Your task to perform on an android device: Do I have any events this weekend? Image 0: 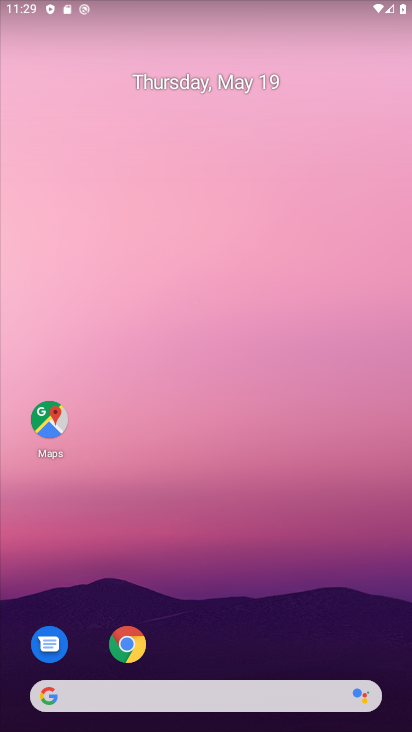
Step 0: drag from (202, 671) to (141, 93)
Your task to perform on an android device: Do I have any events this weekend? Image 1: 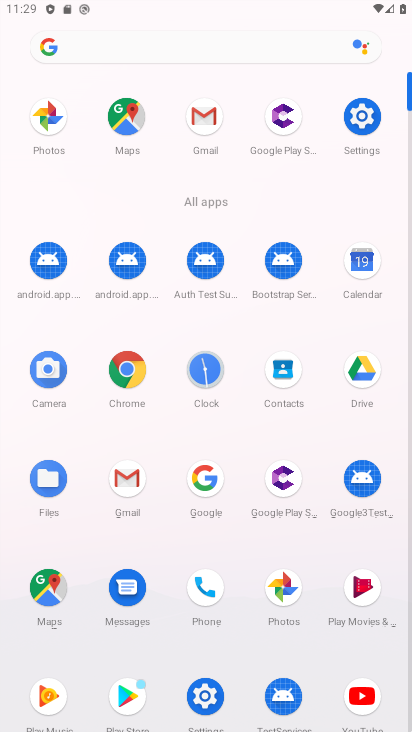
Step 1: click (371, 265)
Your task to perform on an android device: Do I have any events this weekend? Image 2: 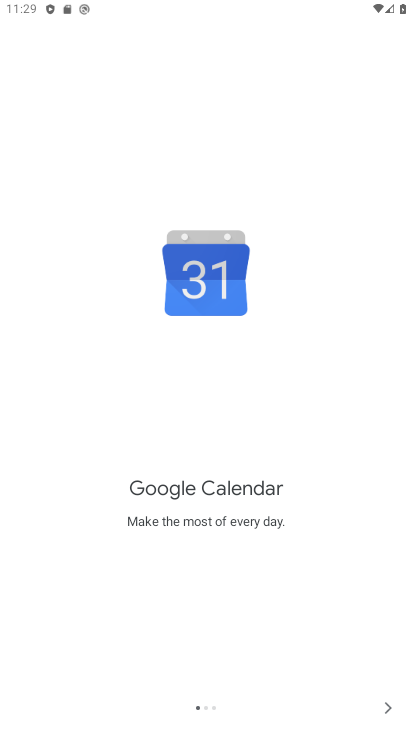
Step 2: click (391, 708)
Your task to perform on an android device: Do I have any events this weekend? Image 3: 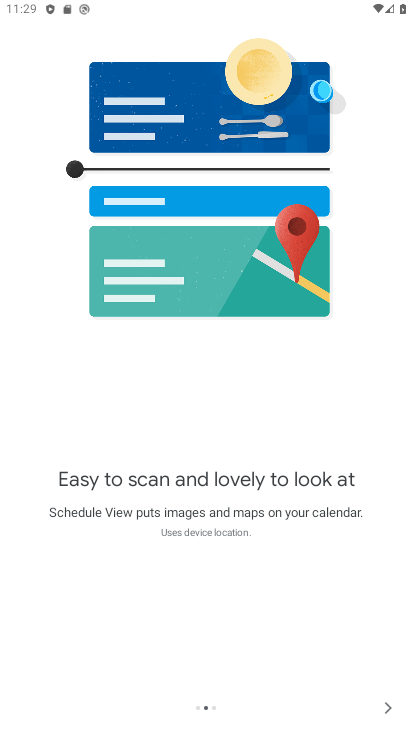
Step 3: click (391, 708)
Your task to perform on an android device: Do I have any events this weekend? Image 4: 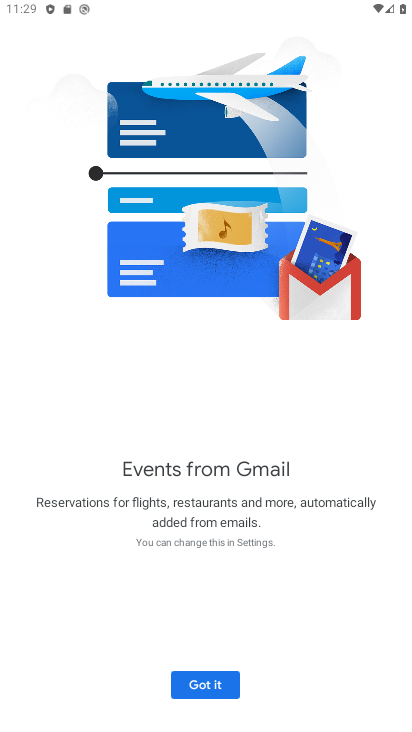
Step 4: click (226, 674)
Your task to perform on an android device: Do I have any events this weekend? Image 5: 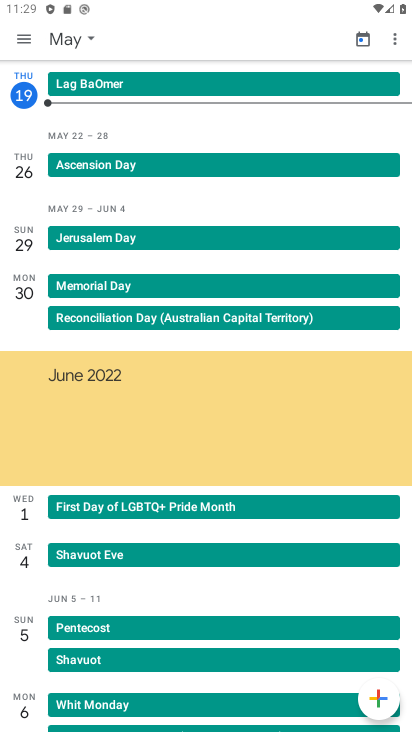
Step 5: click (19, 43)
Your task to perform on an android device: Do I have any events this weekend? Image 6: 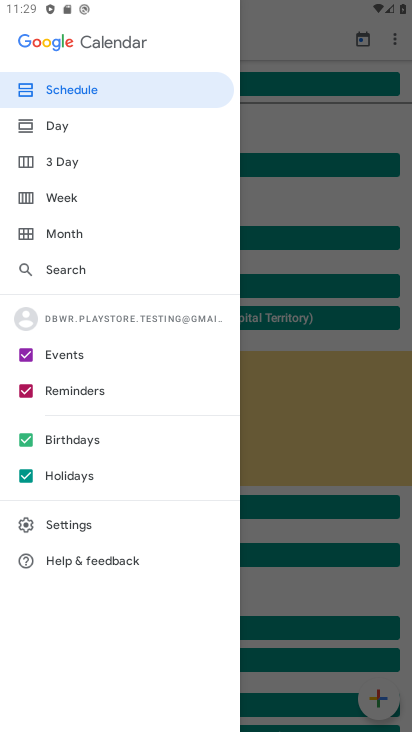
Step 6: click (80, 211)
Your task to perform on an android device: Do I have any events this weekend? Image 7: 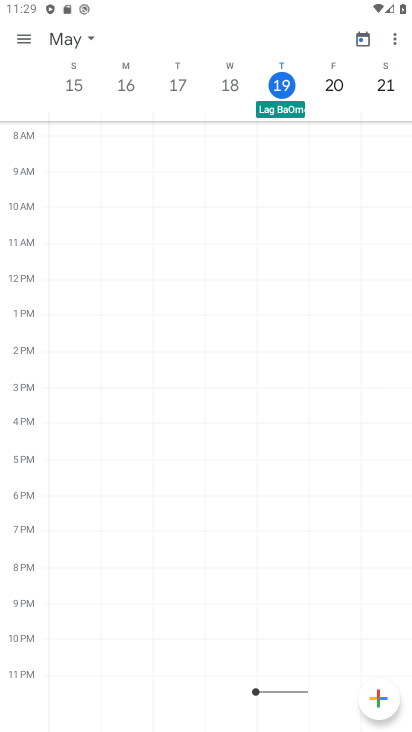
Step 7: task complete